Your task to perform on an android device: Open the web browser Image 0: 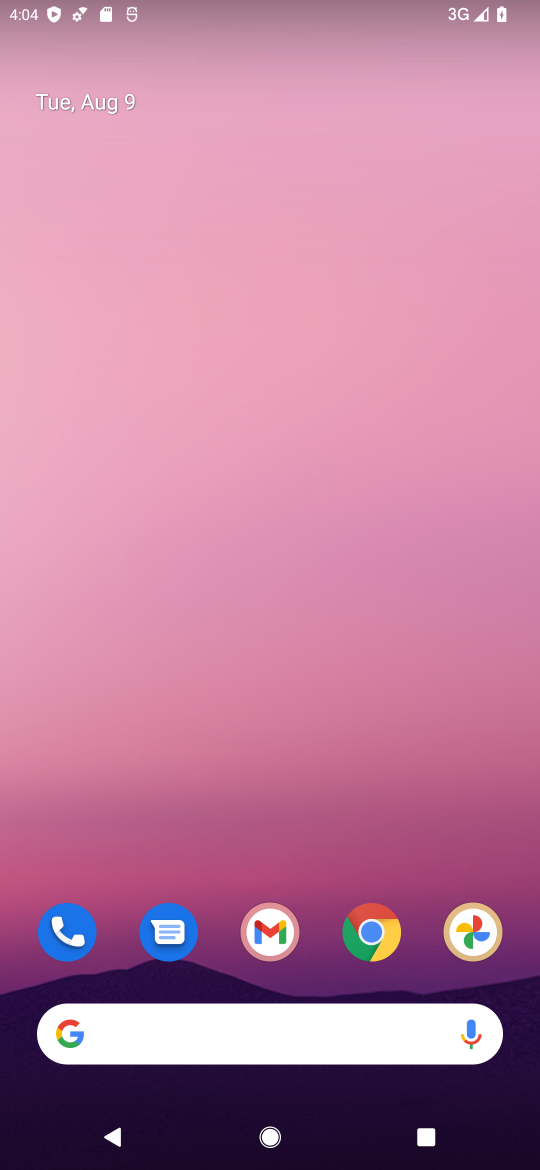
Step 0: drag from (91, 1075) to (233, 12)
Your task to perform on an android device: Open the web browser Image 1: 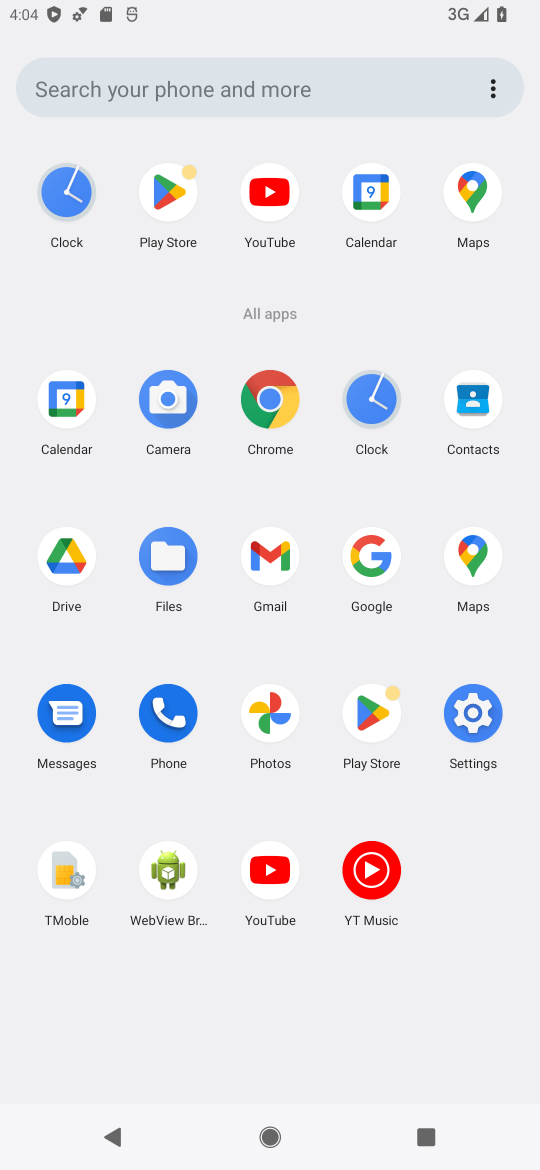
Step 1: click (270, 416)
Your task to perform on an android device: Open the web browser Image 2: 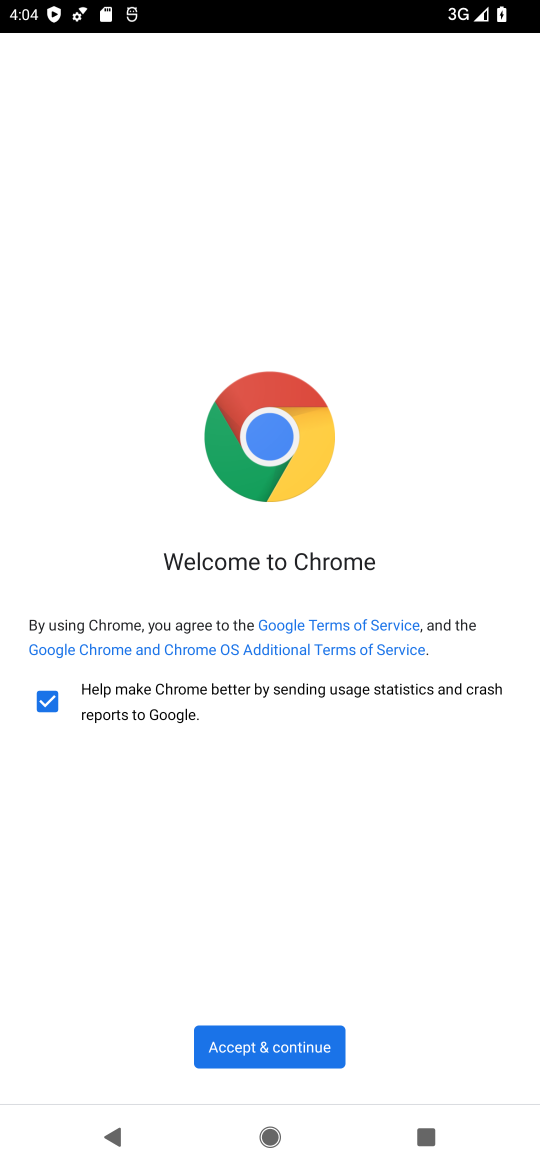
Step 2: click (255, 1044)
Your task to perform on an android device: Open the web browser Image 3: 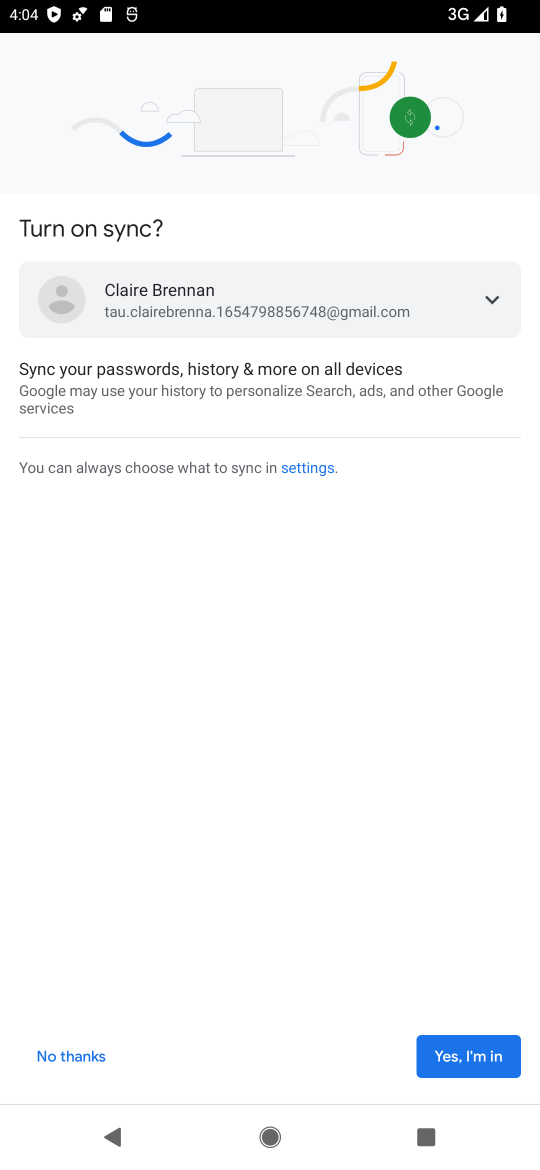
Step 3: click (85, 1059)
Your task to perform on an android device: Open the web browser Image 4: 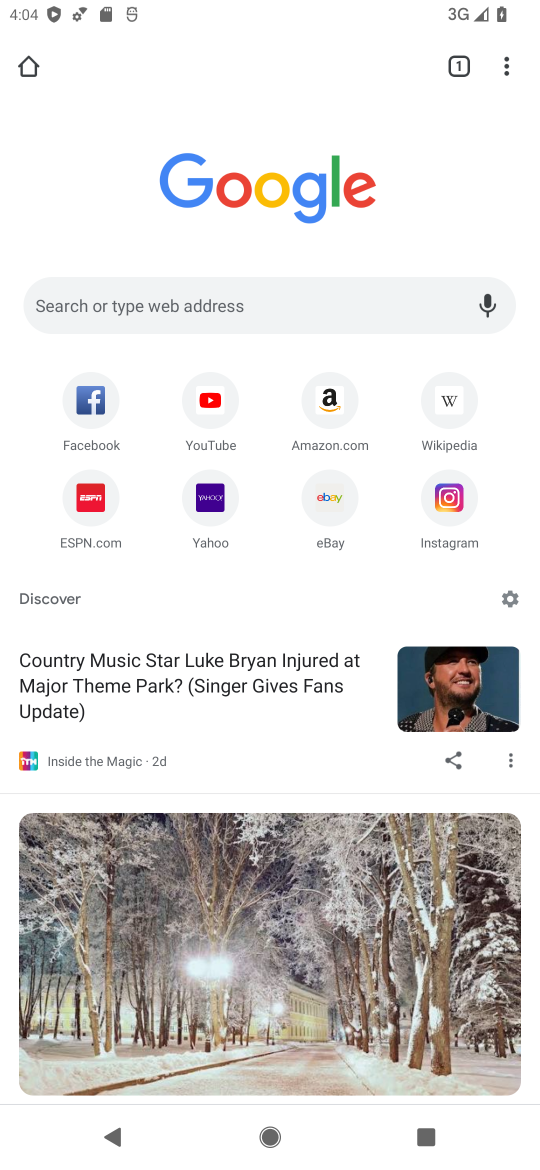
Step 4: task complete